Your task to perform on an android device: check android version Image 0: 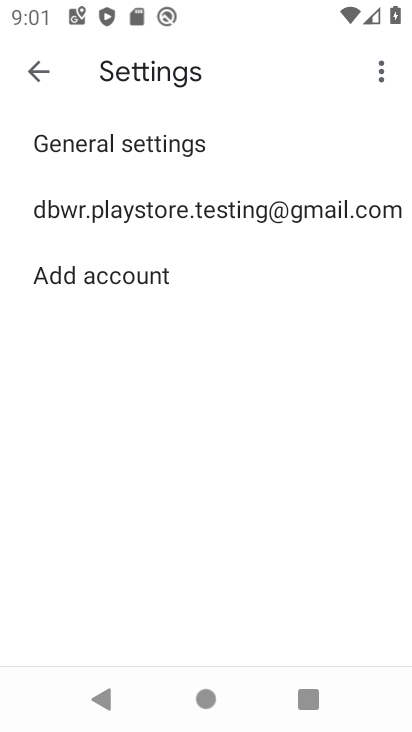
Step 0: press home button
Your task to perform on an android device: check android version Image 1: 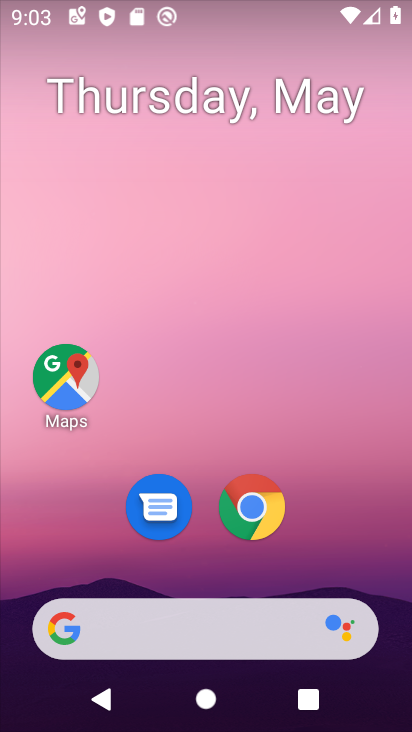
Step 1: drag from (282, 660) to (360, 198)
Your task to perform on an android device: check android version Image 2: 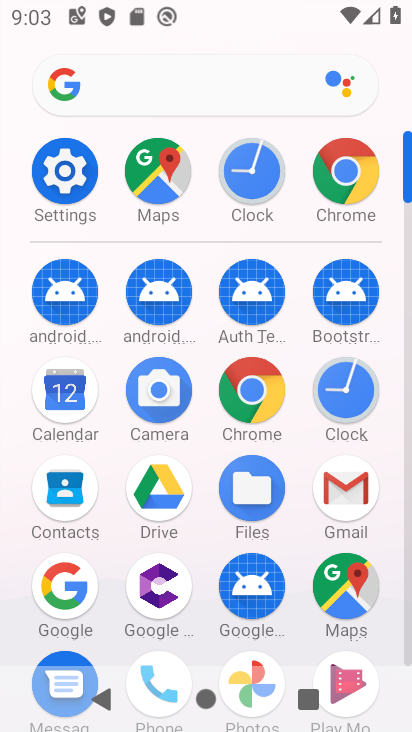
Step 2: click (77, 171)
Your task to perform on an android device: check android version Image 3: 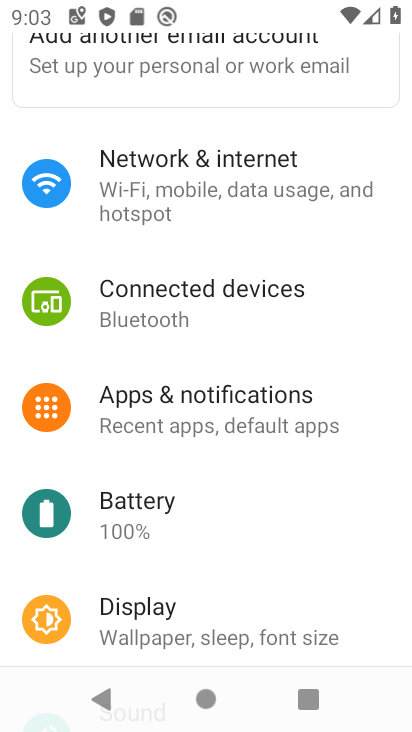
Step 3: drag from (198, 154) to (189, 382)
Your task to perform on an android device: check android version Image 4: 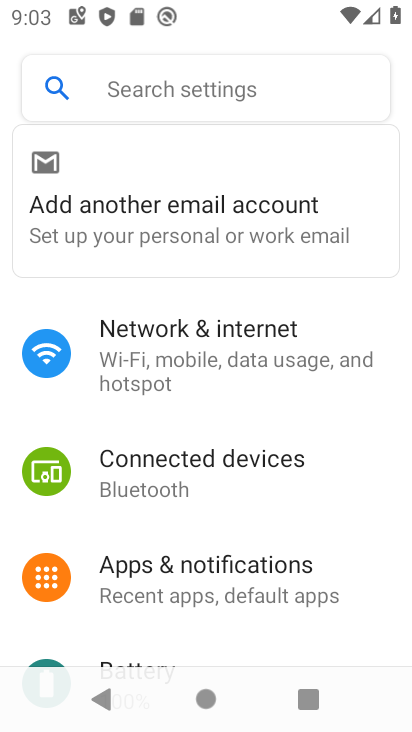
Step 4: click (189, 104)
Your task to perform on an android device: check android version Image 5: 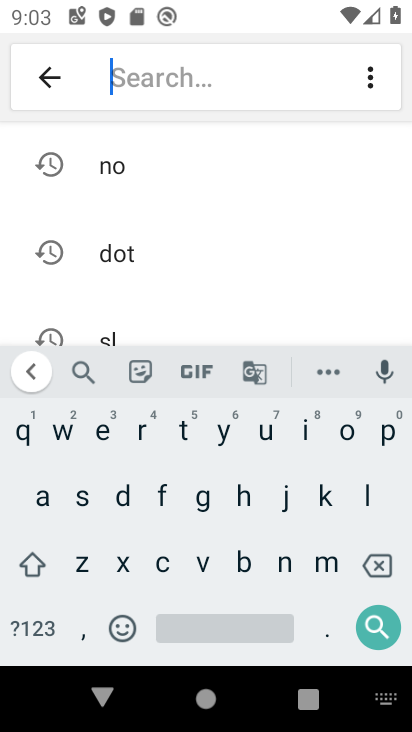
Step 5: click (40, 495)
Your task to perform on an android device: check android version Image 6: 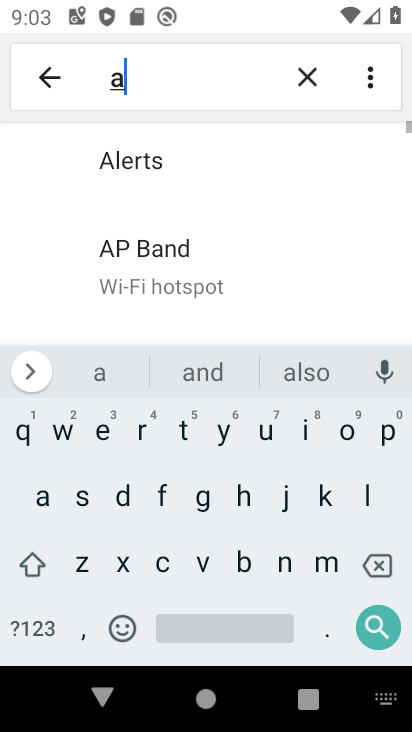
Step 6: click (276, 558)
Your task to perform on an android device: check android version Image 7: 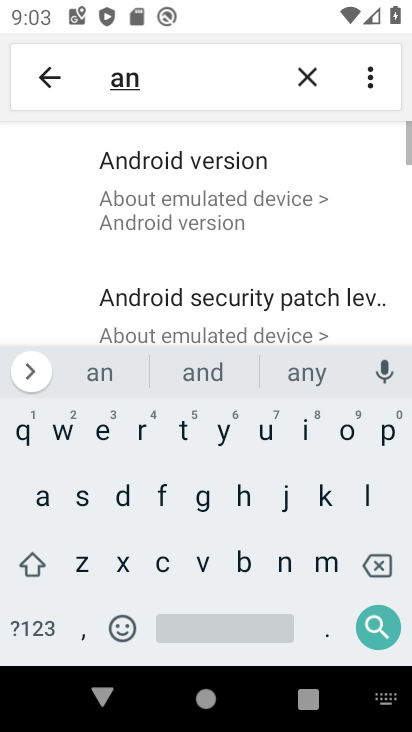
Step 7: click (212, 191)
Your task to perform on an android device: check android version Image 8: 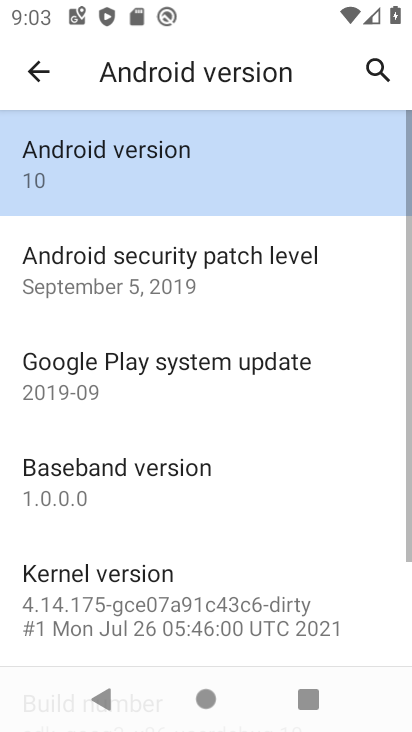
Step 8: click (317, 166)
Your task to perform on an android device: check android version Image 9: 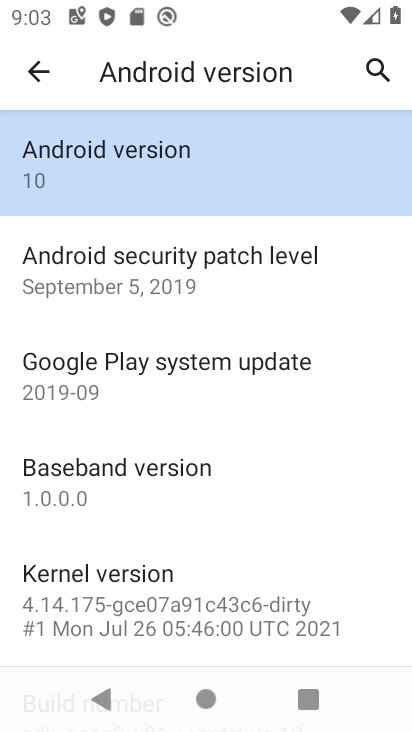
Step 9: task complete